Your task to perform on an android device: find snoozed emails in the gmail app Image 0: 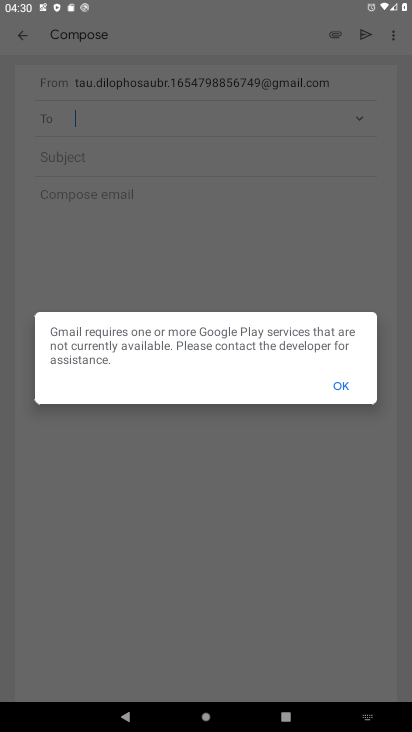
Step 0: press home button
Your task to perform on an android device: find snoozed emails in the gmail app Image 1: 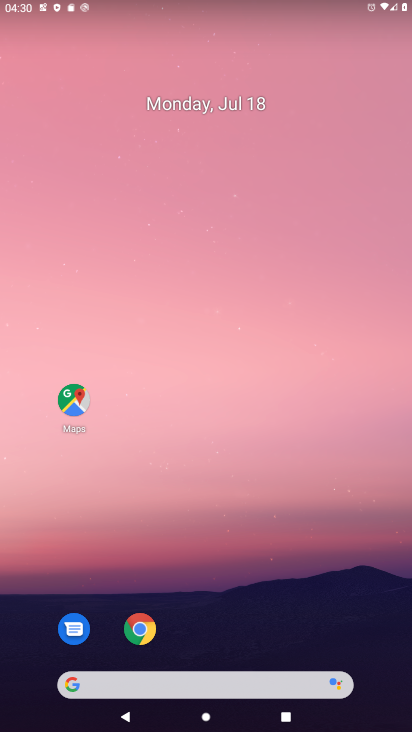
Step 1: drag from (389, 706) to (348, 134)
Your task to perform on an android device: find snoozed emails in the gmail app Image 2: 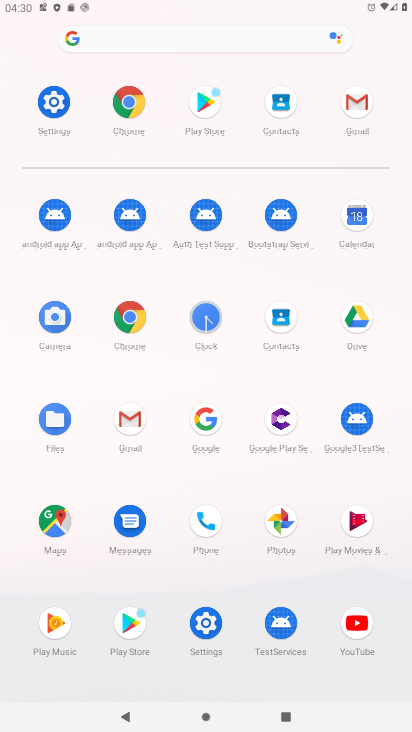
Step 2: click (141, 417)
Your task to perform on an android device: find snoozed emails in the gmail app Image 3: 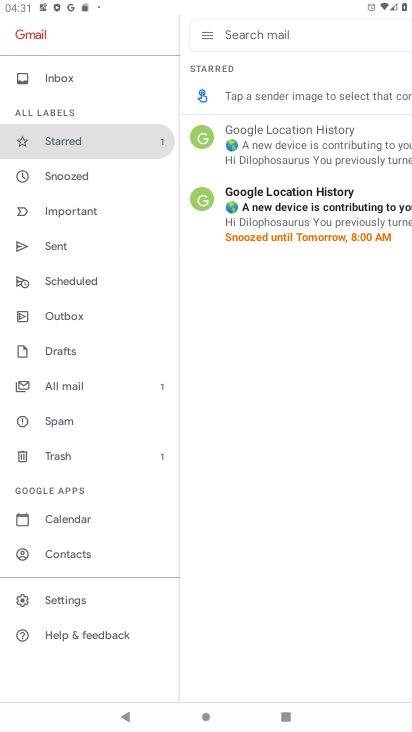
Step 3: click (65, 169)
Your task to perform on an android device: find snoozed emails in the gmail app Image 4: 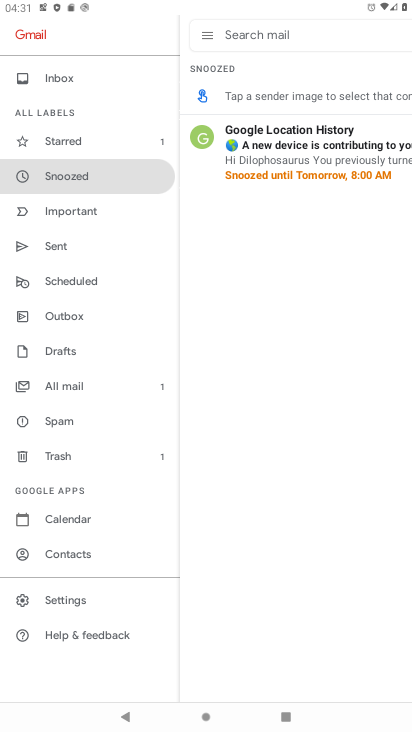
Step 4: task complete